Your task to perform on an android device: Go to wifi settings Image 0: 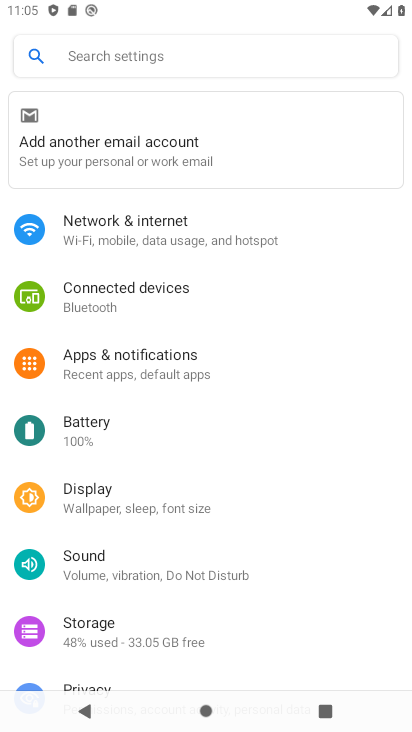
Step 0: click (173, 598)
Your task to perform on an android device: Go to wifi settings Image 1: 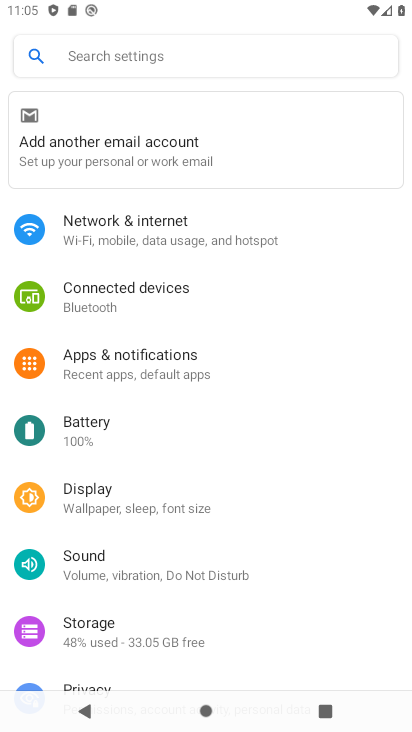
Step 1: click (178, 230)
Your task to perform on an android device: Go to wifi settings Image 2: 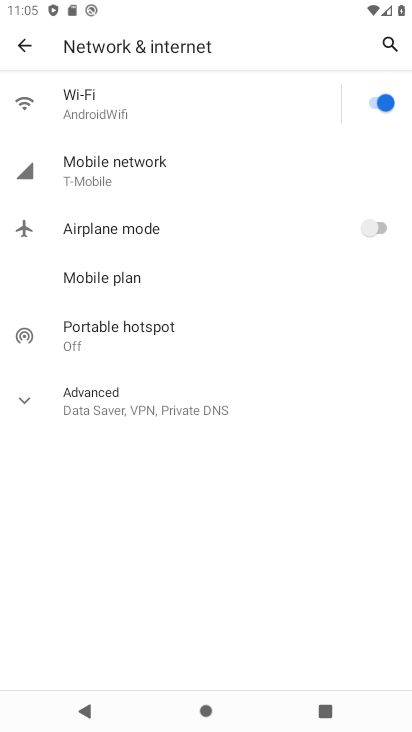
Step 2: click (188, 111)
Your task to perform on an android device: Go to wifi settings Image 3: 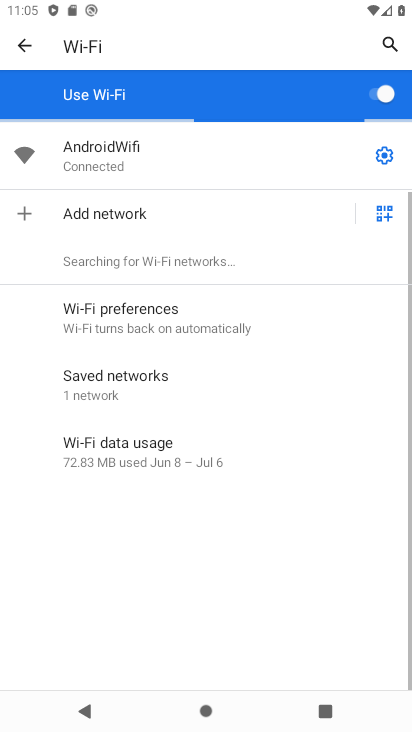
Step 3: click (372, 151)
Your task to perform on an android device: Go to wifi settings Image 4: 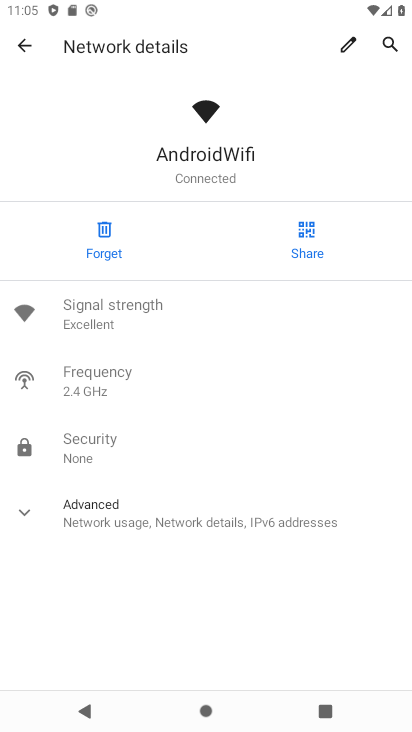
Step 4: task complete